Your task to perform on an android device: Open privacy settings Image 0: 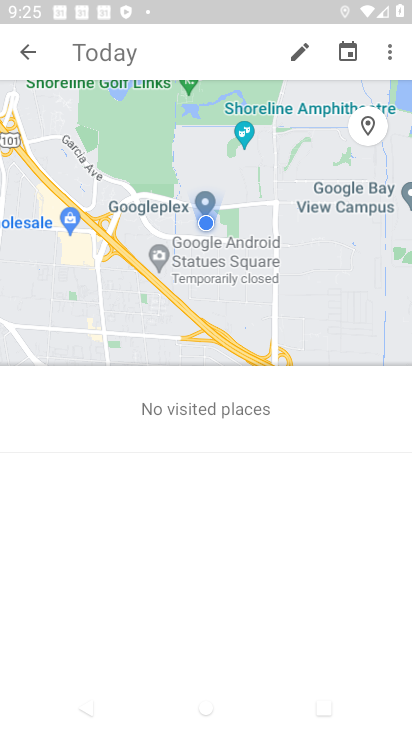
Step 0: press back button
Your task to perform on an android device: Open privacy settings Image 1: 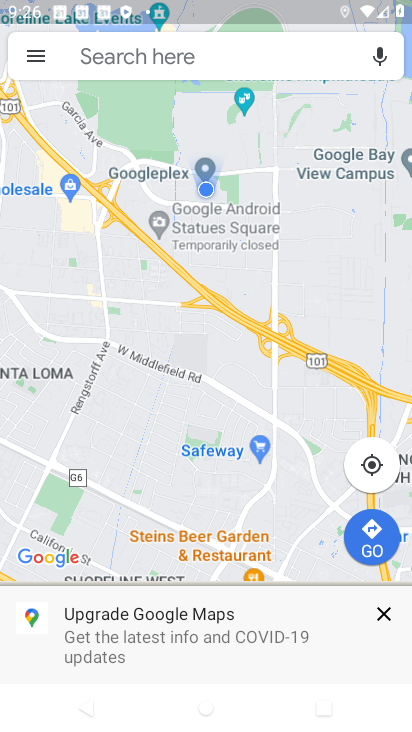
Step 1: press back button
Your task to perform on an android device: Open privacy settings Image 2: 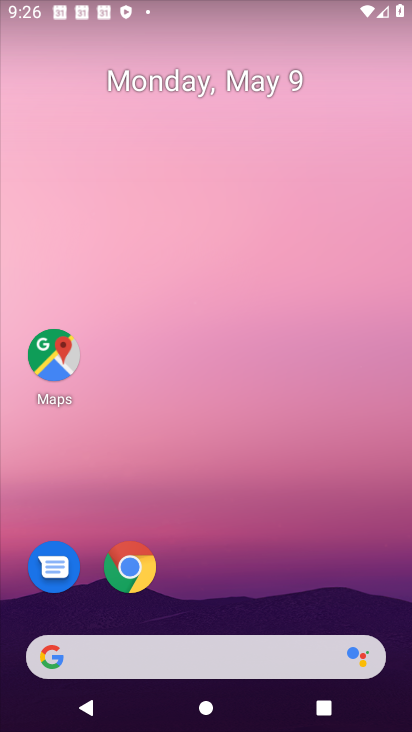
Step 2: drag from (186, 645) to (138, 159)
Your task to perform on an android device: Open privacy settings Image 3: 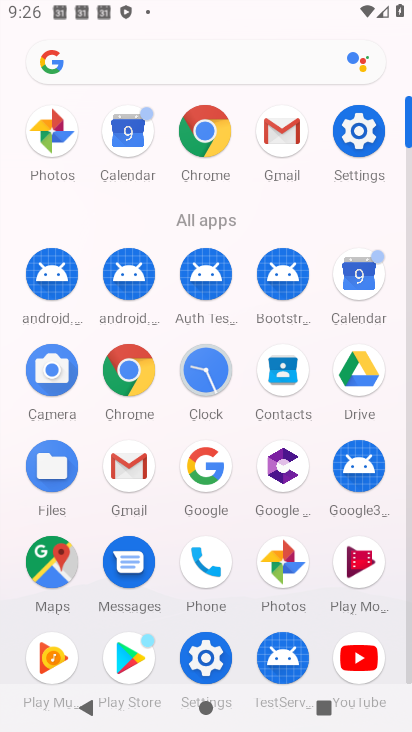
Step 3: click (347, 148)
Your task to perform on an android device: Open privacy settings Image 4: 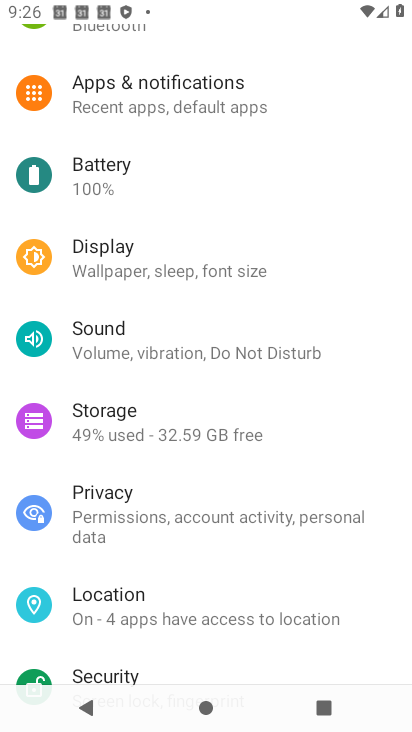
Step 4: click (121, 512)
Your task to perform on an android device: Open privacy settings Image 5: 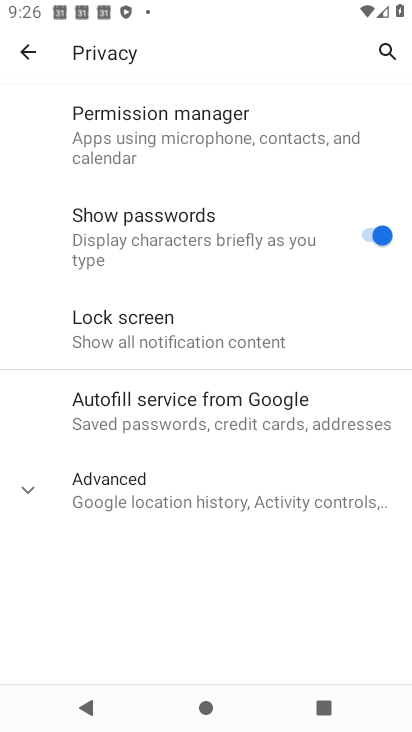
Step 5: task complete